Your task to perform on an android device: turn off translation in the chrome app Image 0: 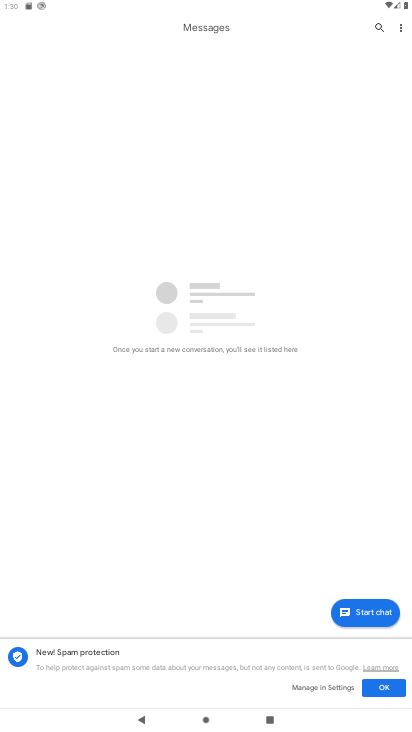
Step 0: press home button
Your task to perform on an android device: turn off translation in the chrome app Image 1: 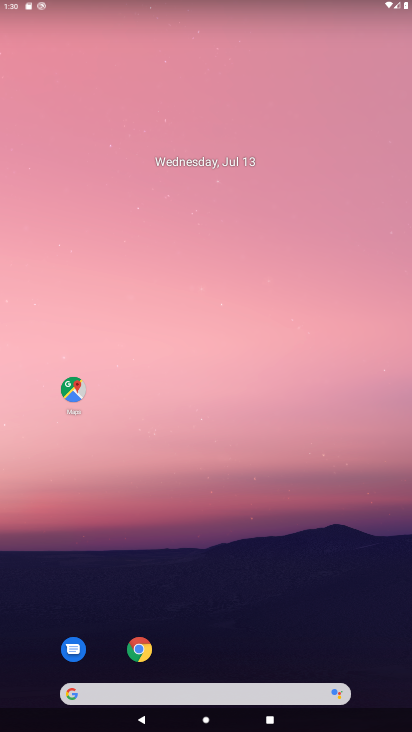
Step 1: click (136, 620)
Your task to perform on an android device: turn off translation in the chrome app Image 2: 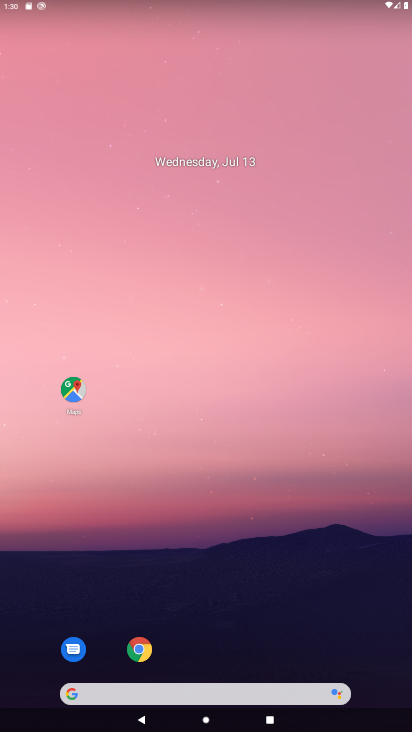
Step 2: click (142, 659)
Your task to perform on an android device: turn off translation in the chrome app Image 3: 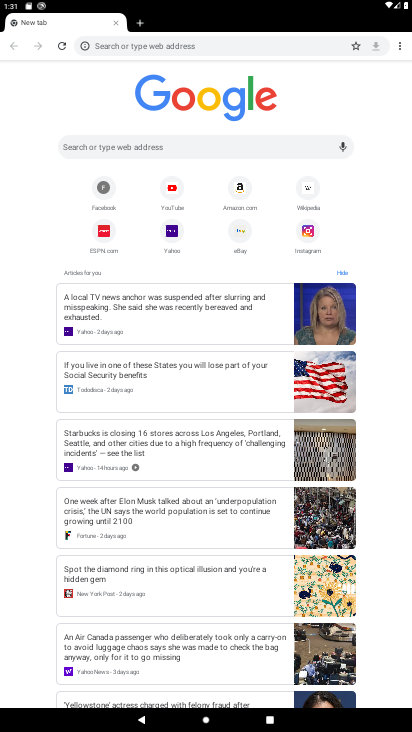
Step 3: drag from (402, 42) to (284, 218)
Your task to perform on an android device: turn off translation in the chrome app Image 4: 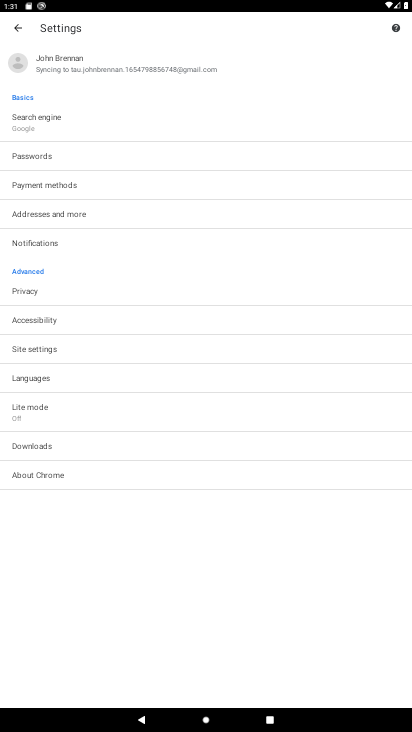
Step 4: click (39, 375)
Your task to perform on an android device: turn off translation in the chrome app Image 5: 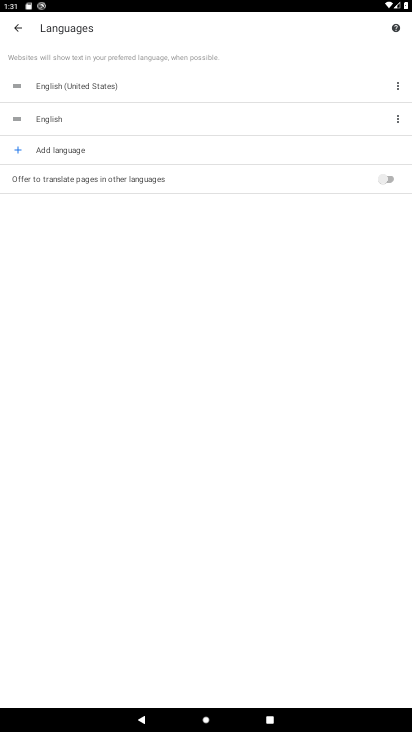
Step 5: task complete